Your task to perform on an android device: check data usage Image 0: 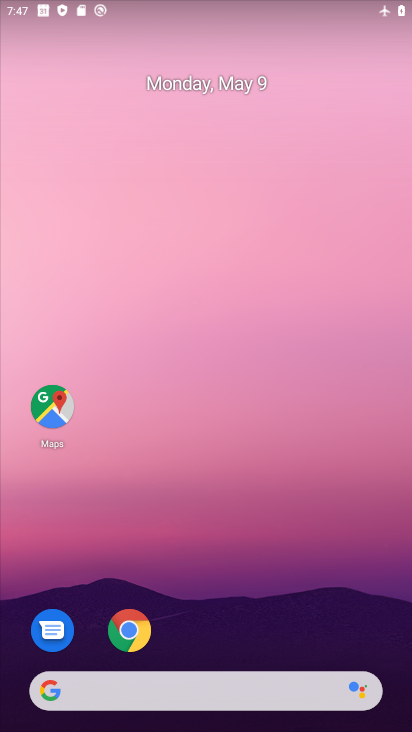
Step 0: press home button
Your task to perform on an android device: check data usage Image 1: 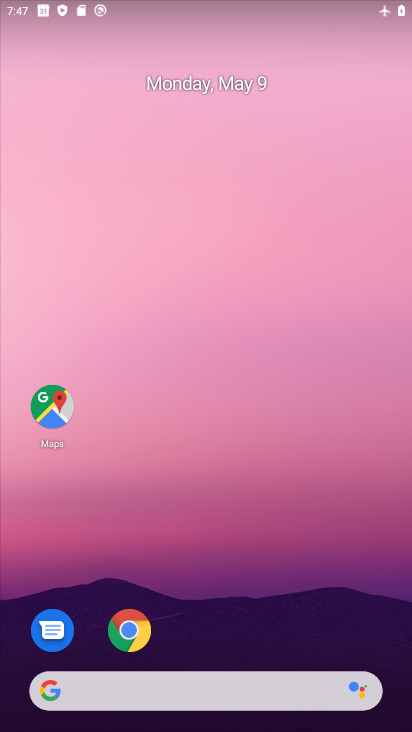
Step 1: drag from (365, 606) to (349, 203)
Your task to perform on an android device: check data usage Image 2: 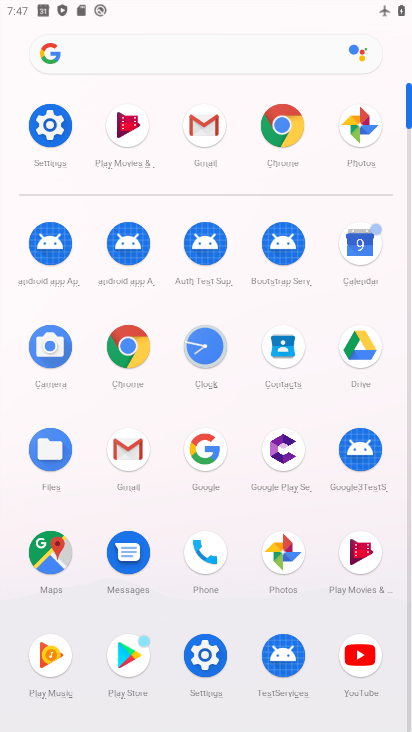
Step 2: click (30, 131)
Your task to perform on an android device: check data usage Image 3: 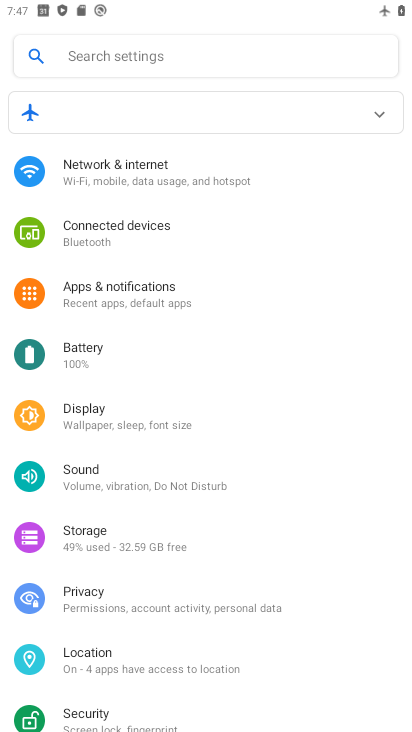
Step 3: click (175, 178)
Your task to perform on an android device: check data usage Image 4: 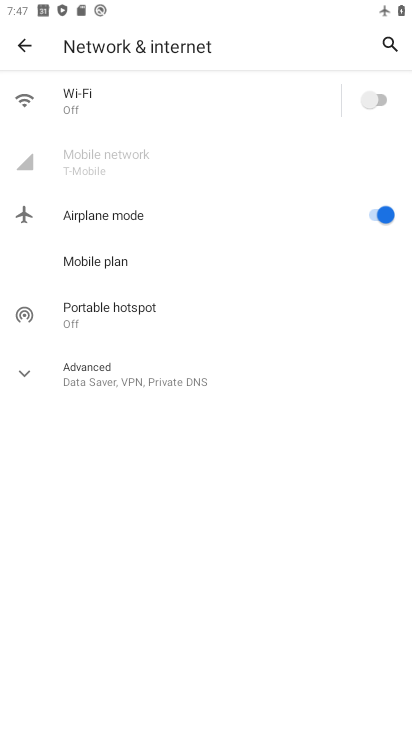
Step 4: task complete